Your task to perform on an android device: delete the emails in spam in the gmail app Image 0: 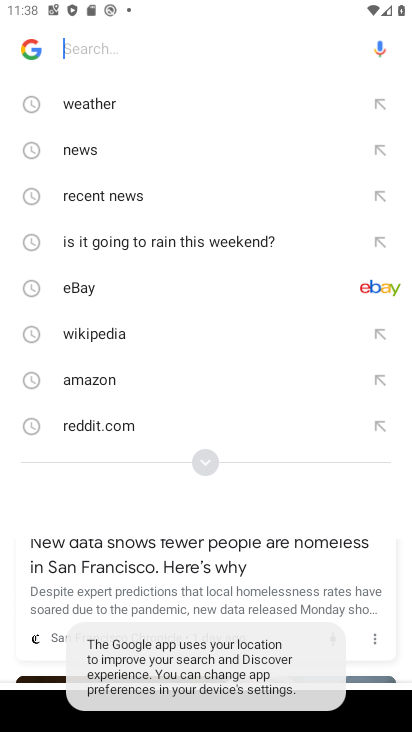
Step 0: press home button
Your task to perform on an android device: delete the emails in spam in the gmail app Image 1: 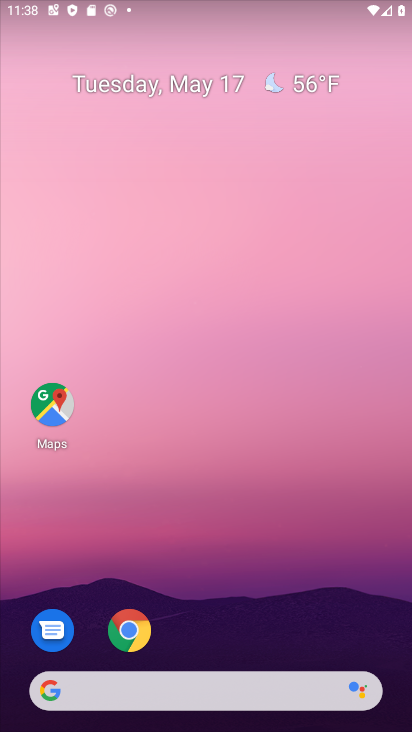
Step 1: drag from (350, 522) to (339, 166)
Your task to perform on an android device: delete the emails in spam in the gmail app Image 2: 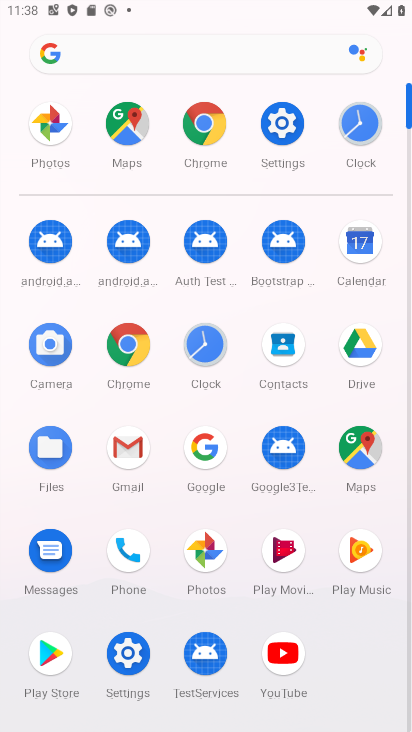
Step 2: click (131, 468)
Your task to perform on an android device: delete the emails in spam in the gmail app Image 3: 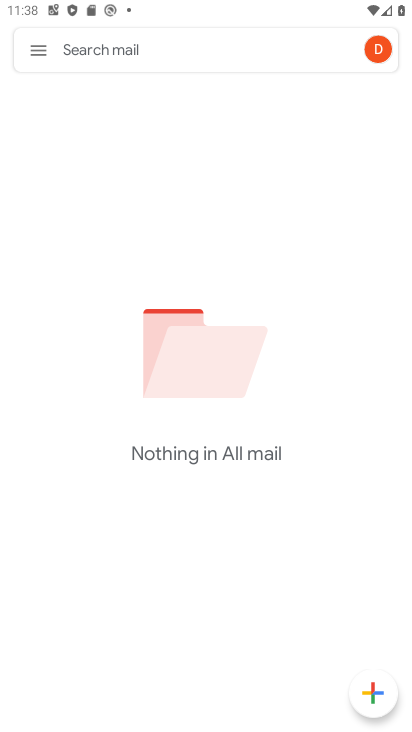
Step 3: click (33, 60)
Your task to perform on an android device: delete the emails in spam in the gmail app Image 4: 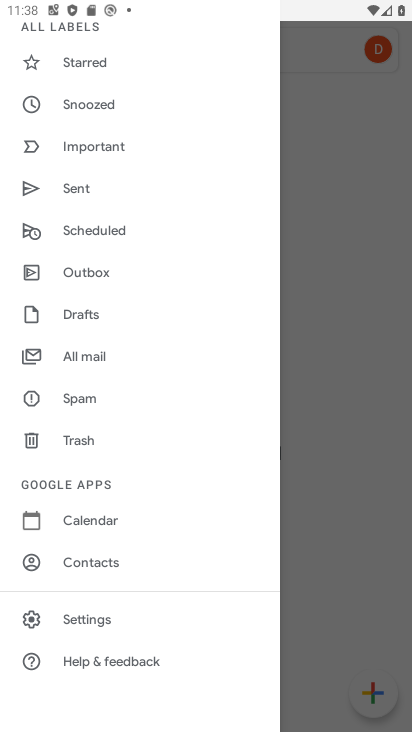
Step 4: click (106, 400)
Your task to perform on an android device: delete the emails in spam in the gmail app Image 5: 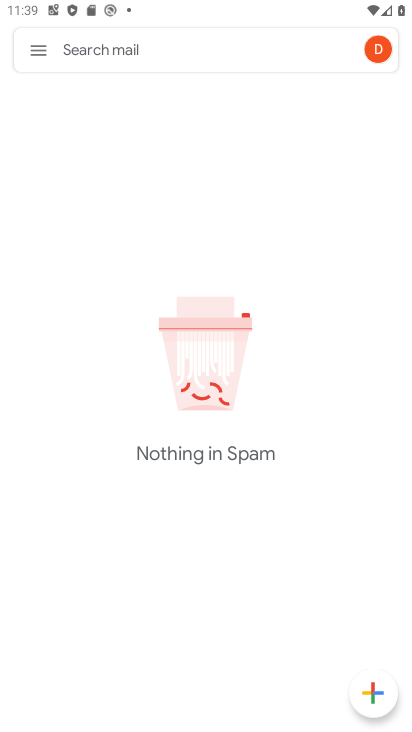
Step 5: task complete